Your task to perform on an android device: Open the phone app and click the voicemail tab. Image 0: 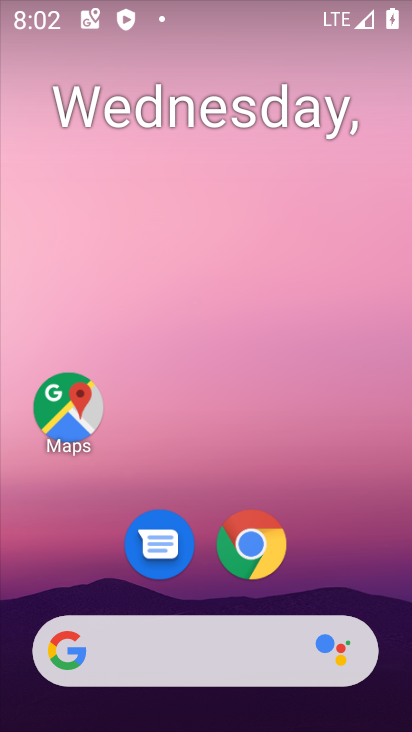
Step 0: drag from (330, 521) to (261, 32)
Your task to perform on an android device: Open the phone app and click the voicemail tab. Image 1: 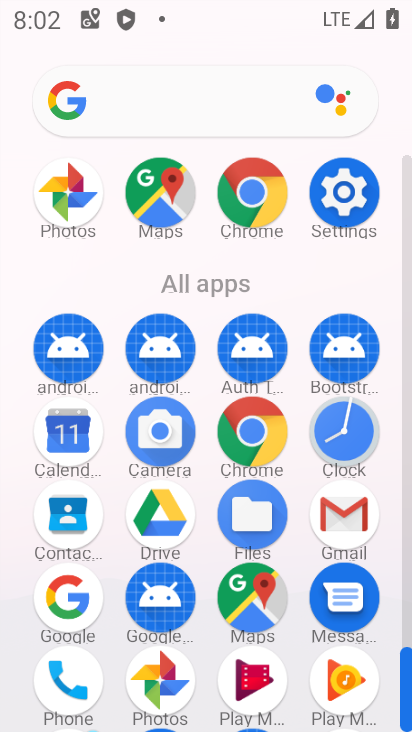
Step 1: drag from (5, 639) to (21, 372)
Your task to perform on an android device: Open the phone app and click the voicemail tab. Image 2: 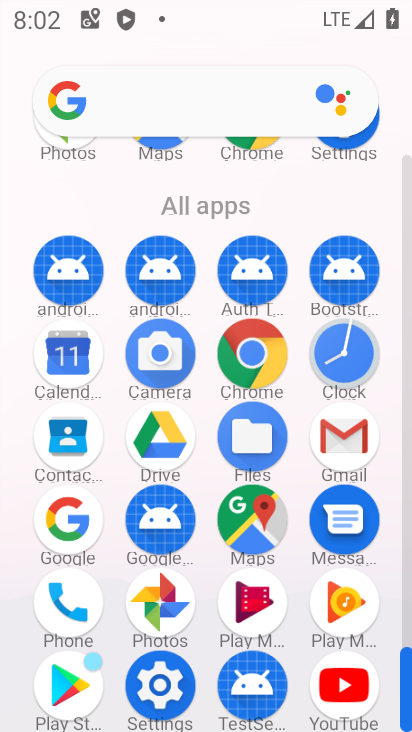
Step 2: click (65, 593)
Your task to perform on an android device: Open the phone app and click the voicemail tab. Image 3: 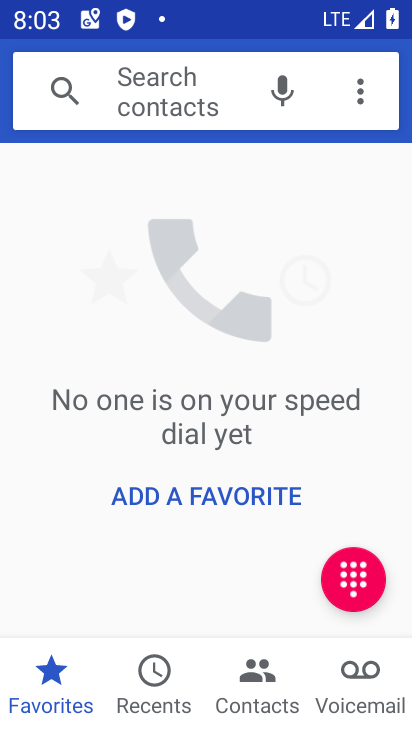
Step 3: click (355, 679)
Your task to perform on an android device: Open the phone app and click the voicemail tab. Image 4: 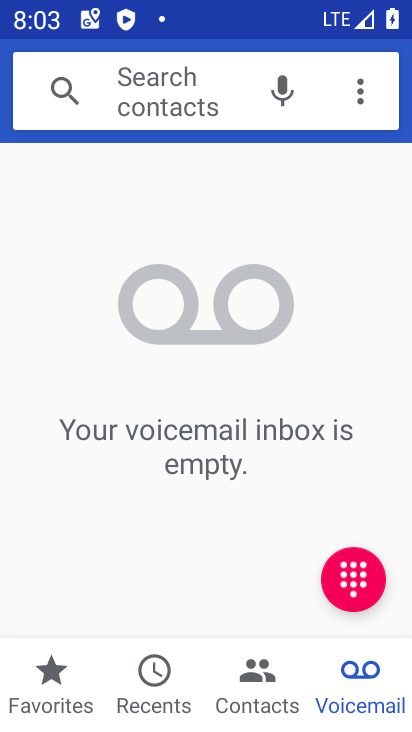
Step 4: task complete